Your task to perform on an android device: Open Google Chrome and open the bookmarks view Image 0: 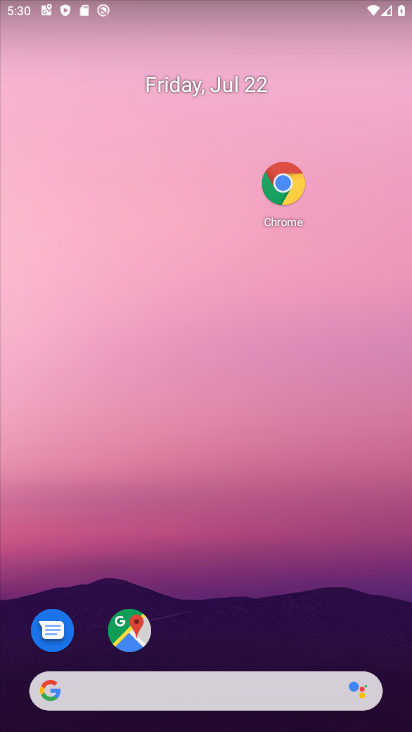
Step 0: click (282, 173)
Your task to perform on an android device: Open Google Chrome and open the bookmarks view Image 1: 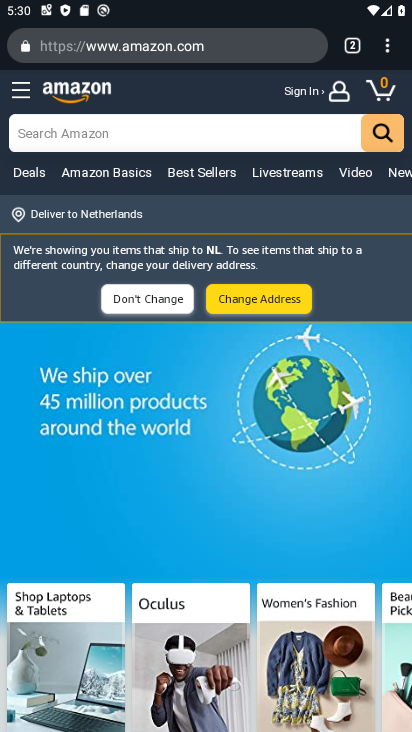
Step 1: click (391, 56)
Your task to perform on an android device: Open Google Chrome and open the bookmarks view Image 2: 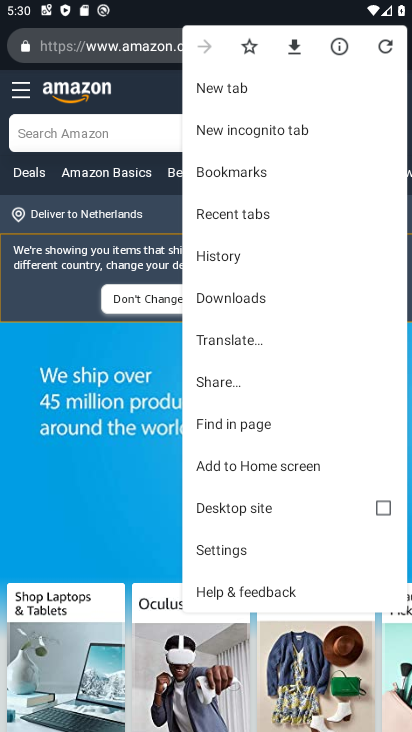
Step 2: click (245, 172)
Your task to perform on an android device: Open Google Chrome and open the bookmarks view Image 3: 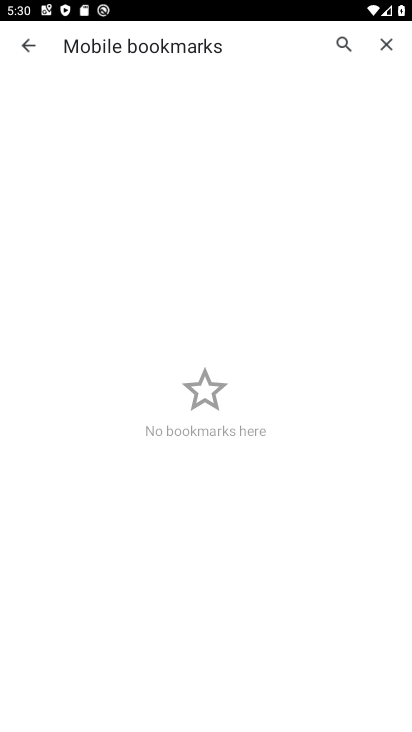
Step 3: task complete